Your task to perform on an android device: Open Google Maps Image 0: 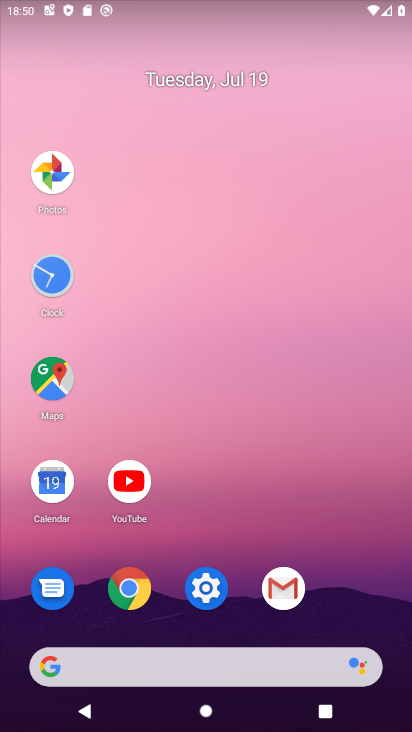
Step 0: click (51, 375)
Your task to perform on an android device: Open Google Maps Image 1: 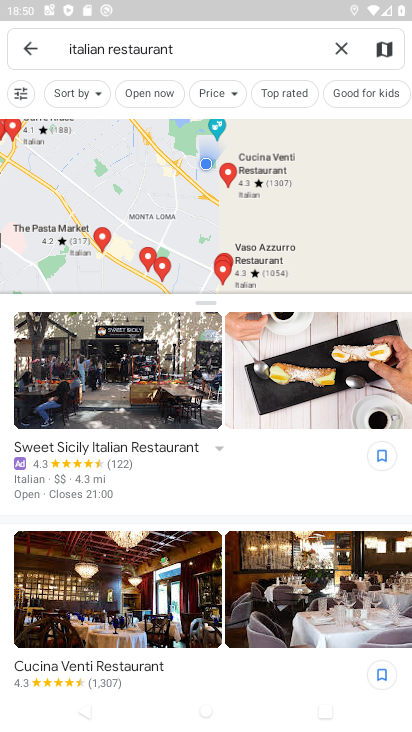
Step 1: task complete